Your task to perform on an android device: Go to privacy settings Image 0: 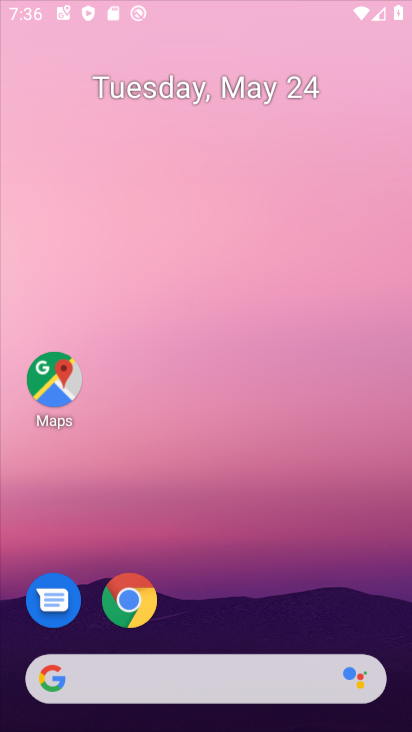
Step 0: drag from (317, 118) to (235, 416)
Your task to perform on an android device: Go to privacy settings Image 1: 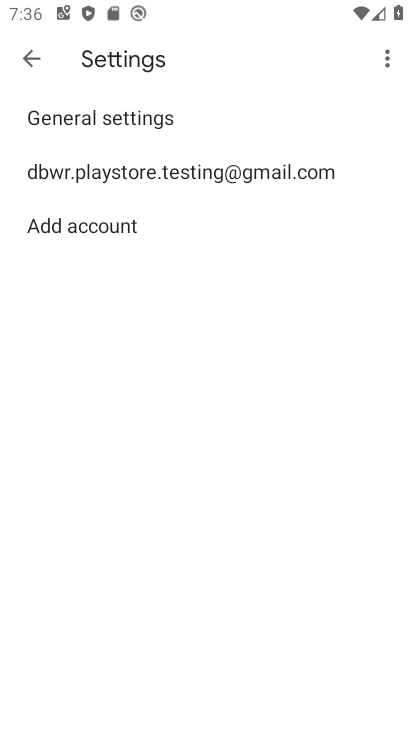
Step 1: press home button
Your task to perform on an android device: Go to privacy settings Image 2: 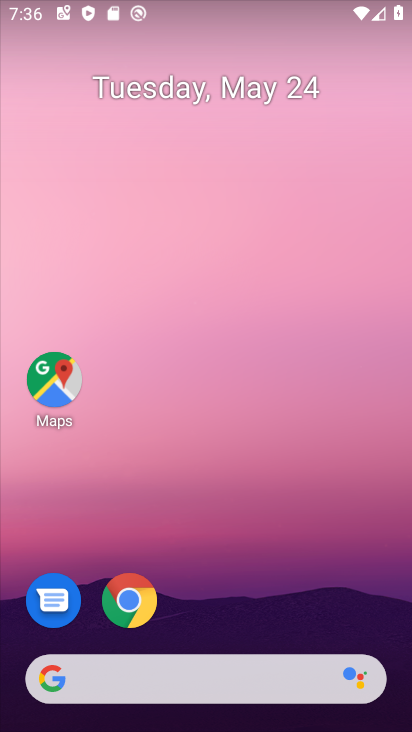
Step 2: drag from (230, 613) to (304, 53)
Your task to perform on an android device: Go to privacy settings Image 3: 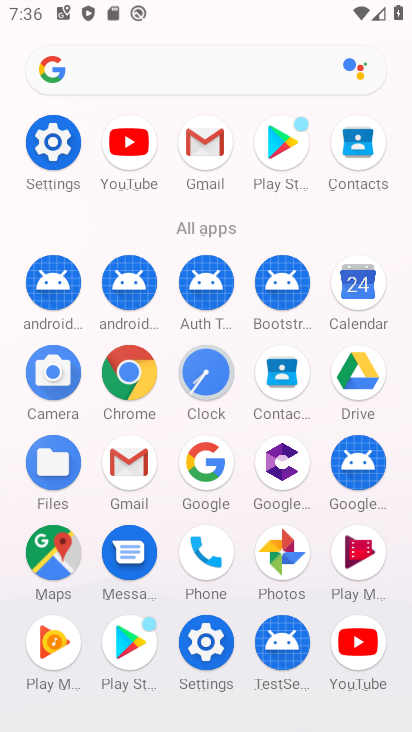
Step 3: click (60, 142)
Your task to perform on an android device: Go to privacy settings Image 4: 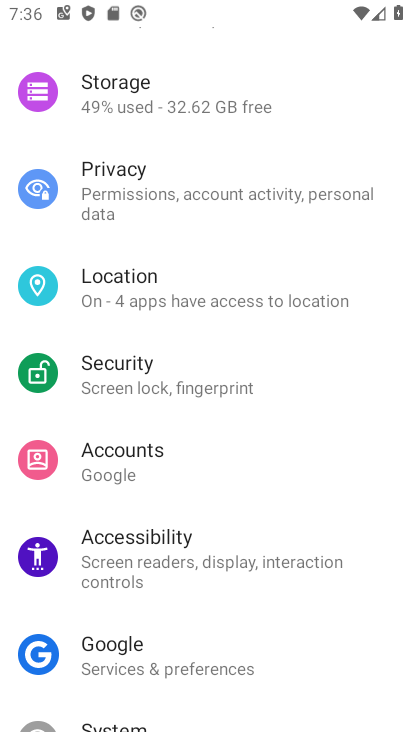
Step 4: click (117, 184)
Your task to perform on an android device: Go to privacy settings Image 5: 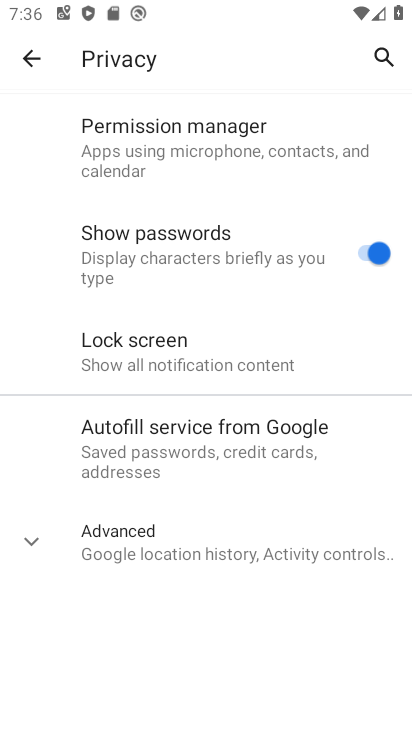
Step 5: task complete